Your task to perform on an android device: delete browsing data in the chrome app Image 0: 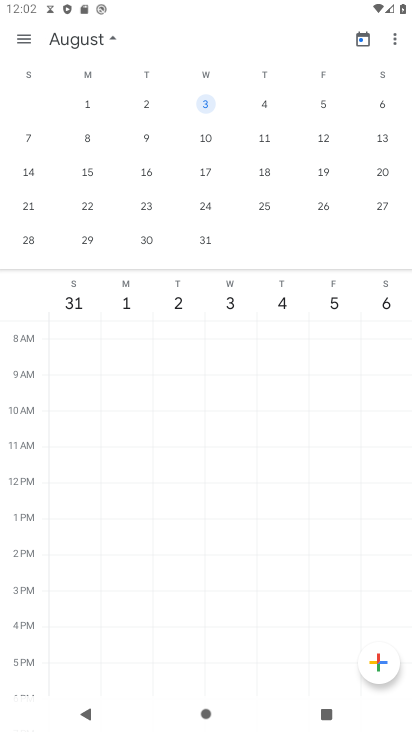
Step 0: press home button
Your task to perform on an android device: delete browsing data in the chrome app Image 1: 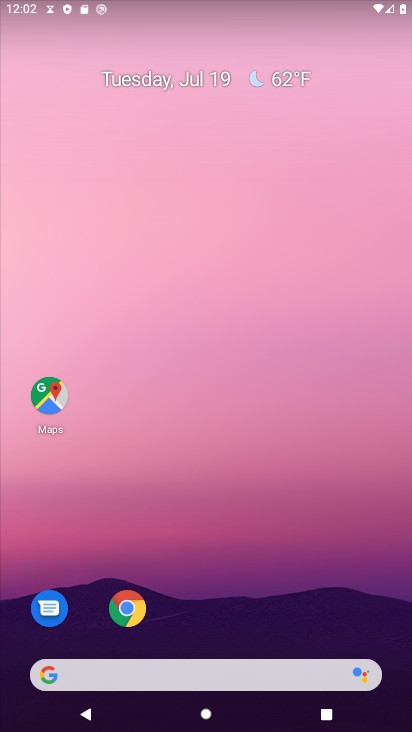
Step 1: click (135, 611)
Your task to perform on an android device: delete browsing data in the chrome app Image 2: 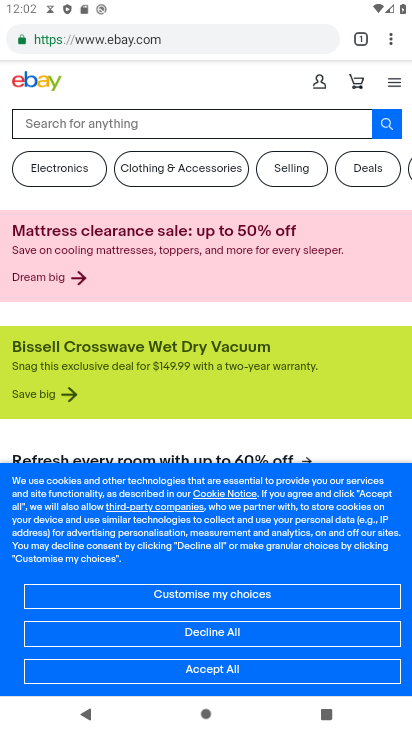
Step 2: click (396, 45)
Your task to perform on an android device: delete browsing data in the chrome app Image 3: 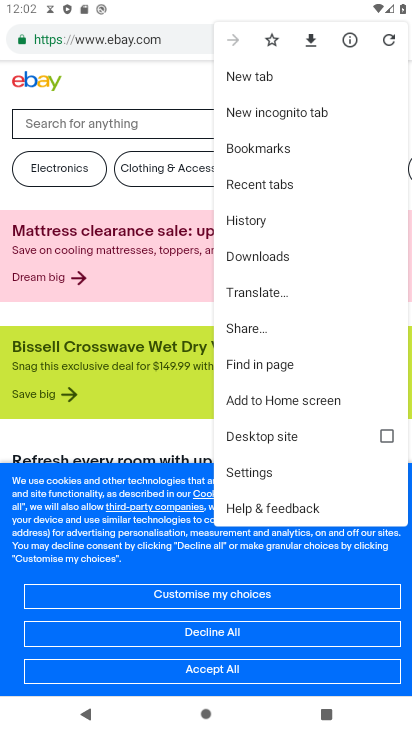
Step 3: click (257, 221)
Your task to perform on an android device: delete browsing data in the chrome app Image 4: 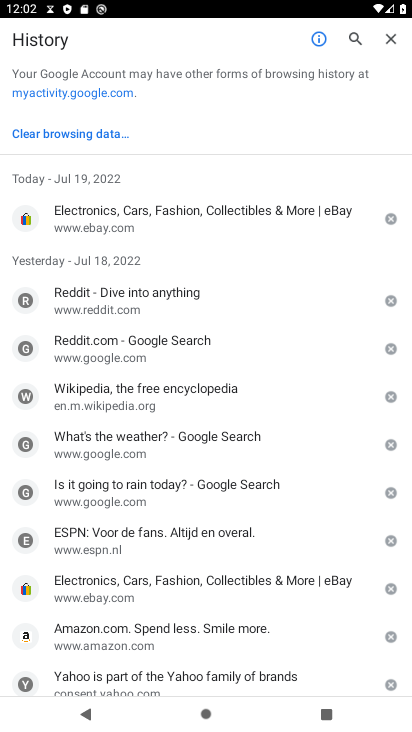
Step 4: click (77, 133)
Your task to perform on an android device: delete browsing data in the chrome app Image 5: 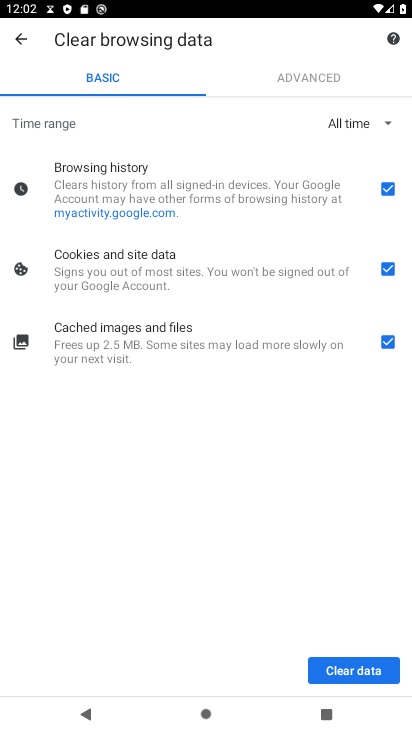
Step 5: click (387, 275)
Your task to perform on an android device: delete browsing data in the chrome app Image 6: 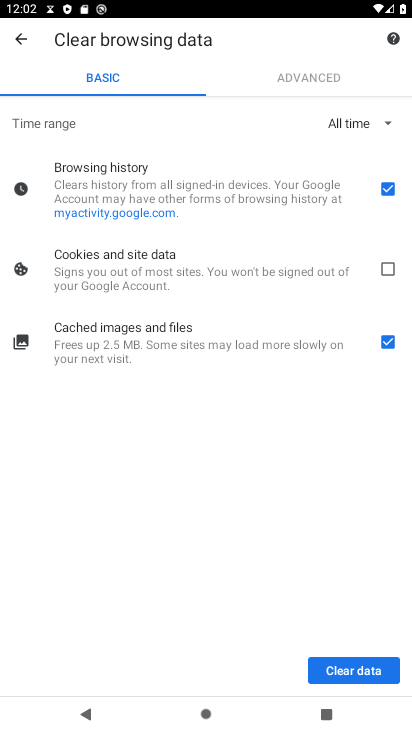
Step 6: click (394, 330)
Your task to perform on an android device: delete browsing data in the chrome app Image 7: 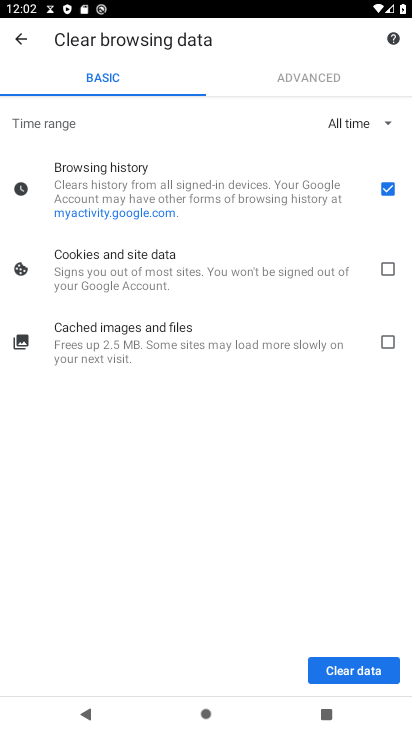
Step 7: click (352, 675)
Your task to perform on an android device: delete browsing data in the chrome app Image 8: 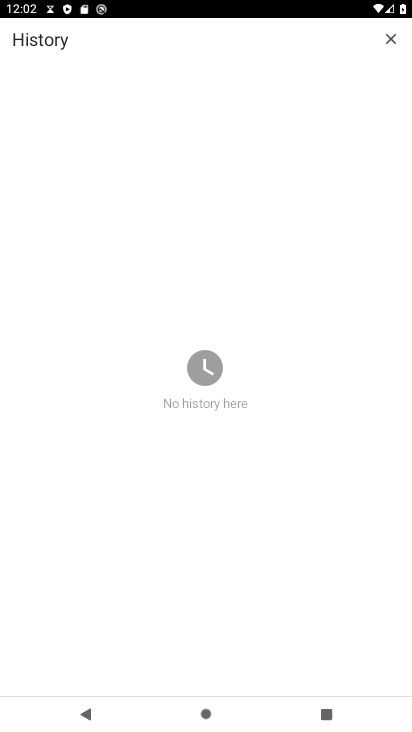
Step 8: task complete